Your task to perform on an android device: turn off notifications in google photos Image 0: 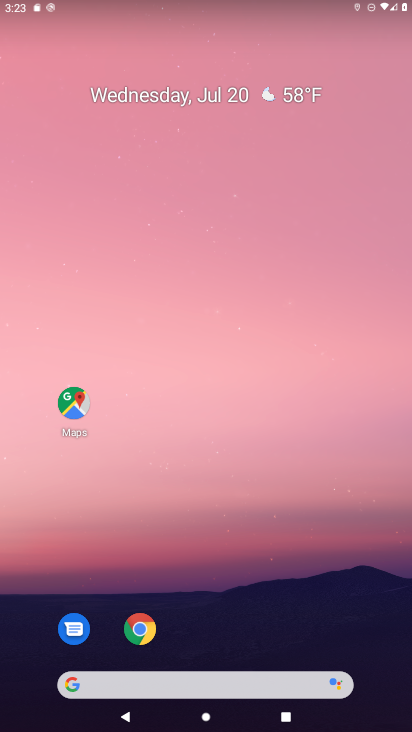
Step 0: drag from (167, 599) to (259, 151)
Your task to perform on an android device: turn off notifications in google photos Image 1: 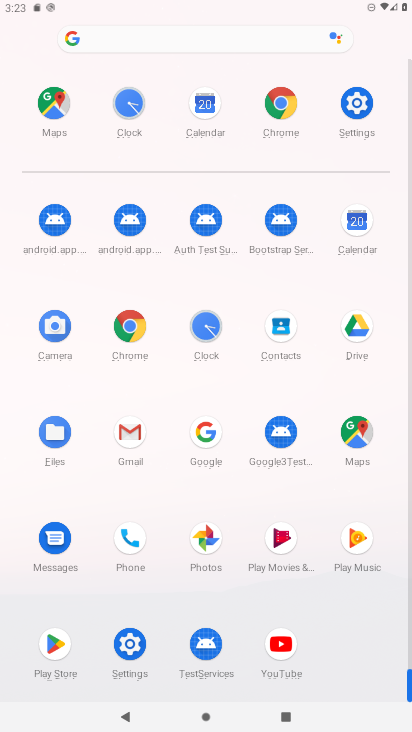
Step 1: drag from (146, 548) to (204, 233)
Your task to perform on an android device: turn off notifications in google photos Image 2: 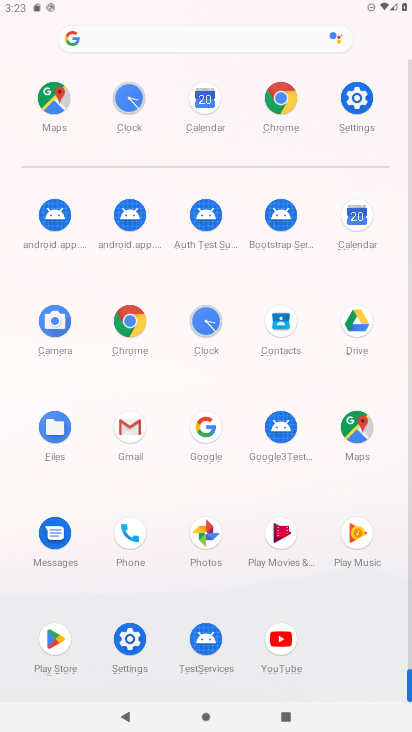
Step 2: click (206, 430)
Your task to perform on an android device: turn off notifications in google photos Image 3: 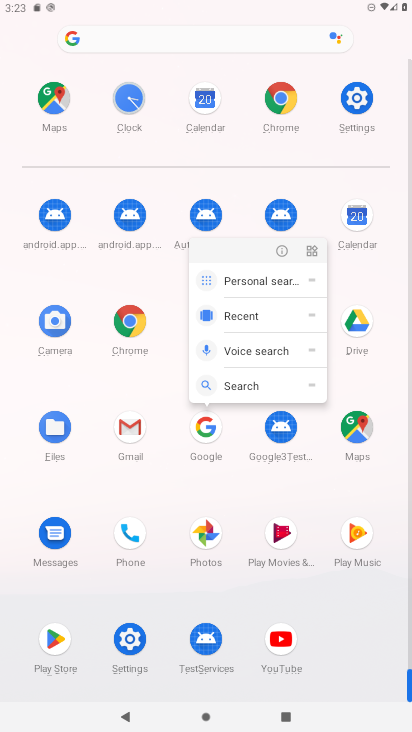
Step 3: click (279, 251)
Your task to perform on an android device: turn off notifications in google photos Image 4: 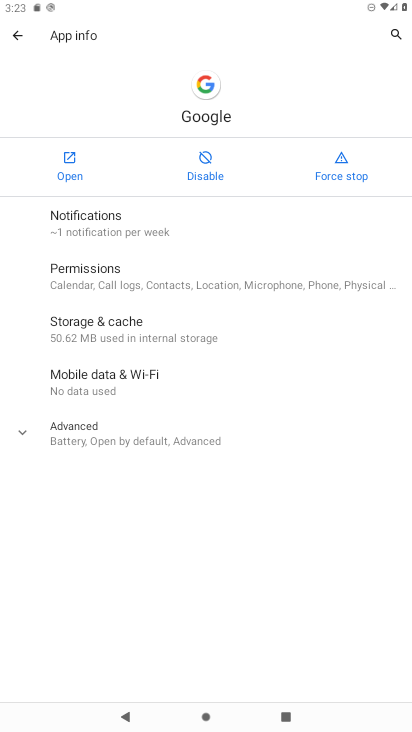
Step 4: click (78, 217)
Your task to perform on an android device: turn off notifications in google photos Image 5: 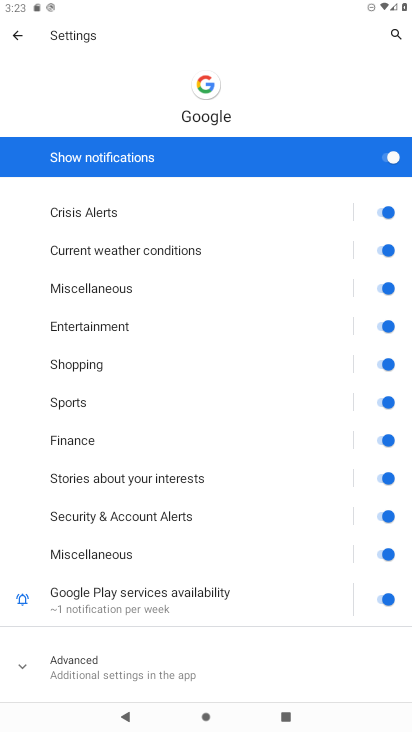
Step 5: click (206, 169)
Your task to perform on an android device: turn off notifications in google photos Image 6: 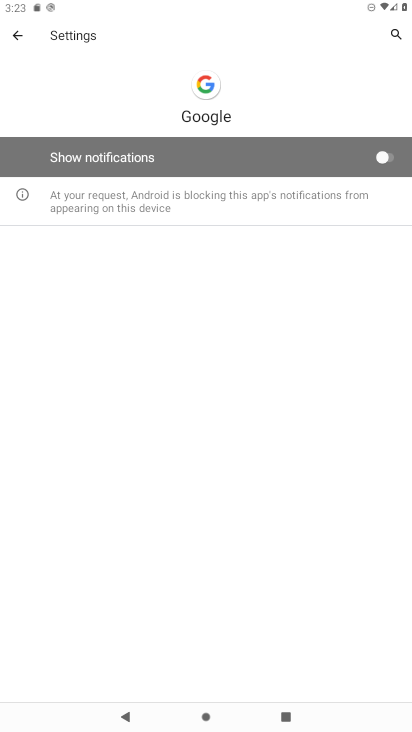
Step 6: task complete